Your task to perform on an android device: set default search engine in the chrome app Image 0: 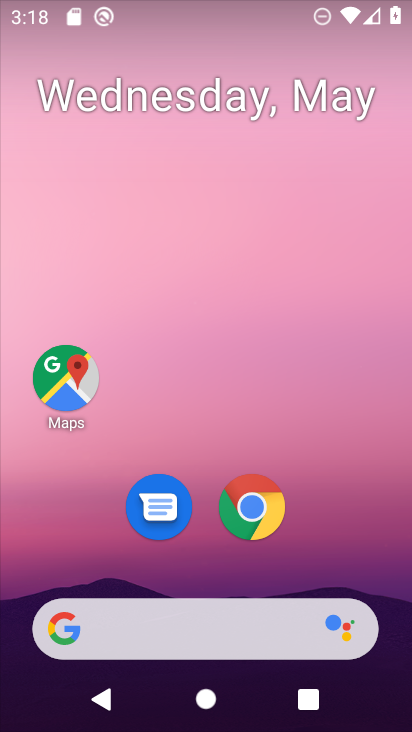
Step 0: click (268, 519)
Your task to perform on an android device: set default search engine in the chrome app Image 1: 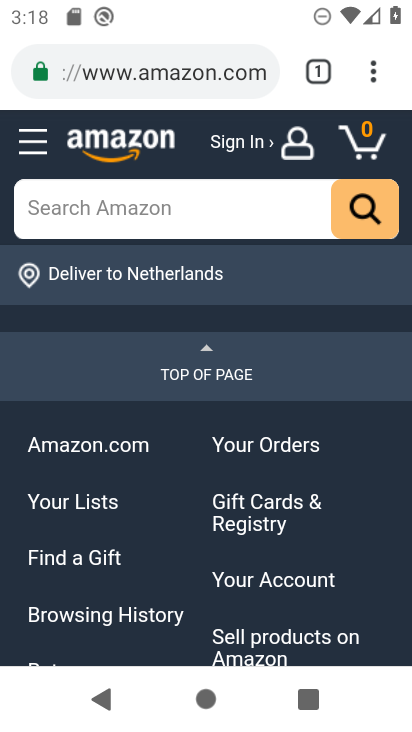
Step 1: click (371, 78)
Your task to perform on an android device: set default search engine in the chrome app Image 2: 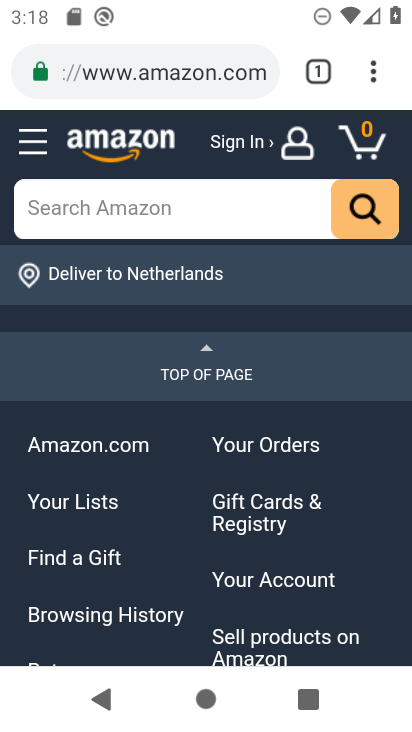
Step 2: click (375, 75)
Your task to perform on an android device: set default search engine in the chrome app Image 3: 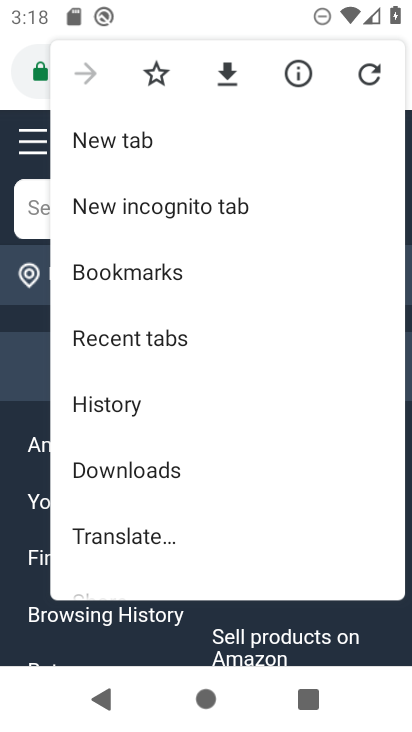
Step 3: drag from (118, 459) to (196, 214)
Your task to perform on an android device: set default search engine in the chrome app Image 4: 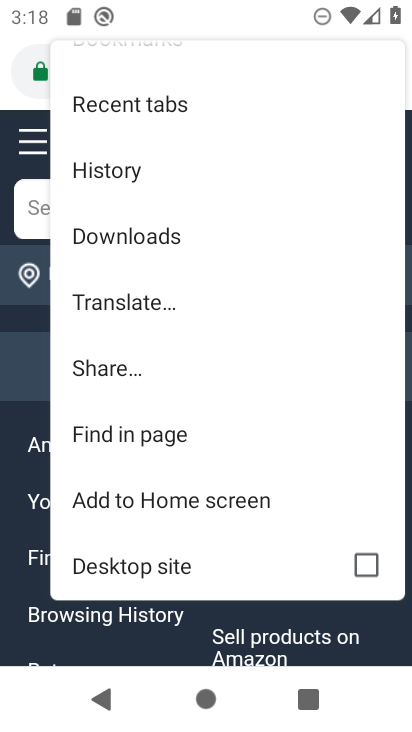
Step 4: drag from (141, 528) to (203, 290)
Your task to perform on an android device: set default search engine in the chrome app Image 5: 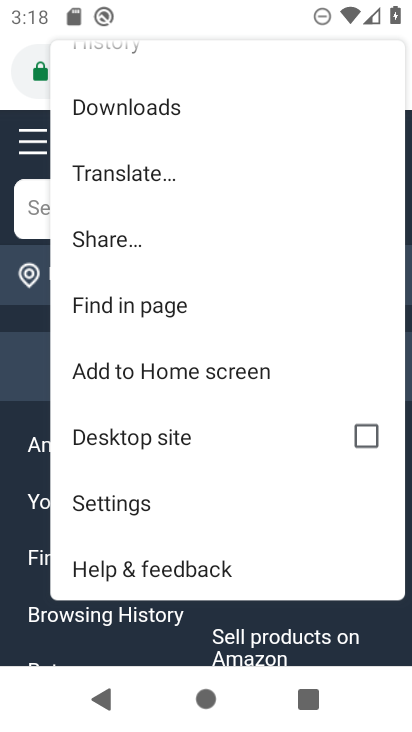
Step 5: click (134, 519)
Your task to perform on an android device: set default search engine in the chrome app Image 6: 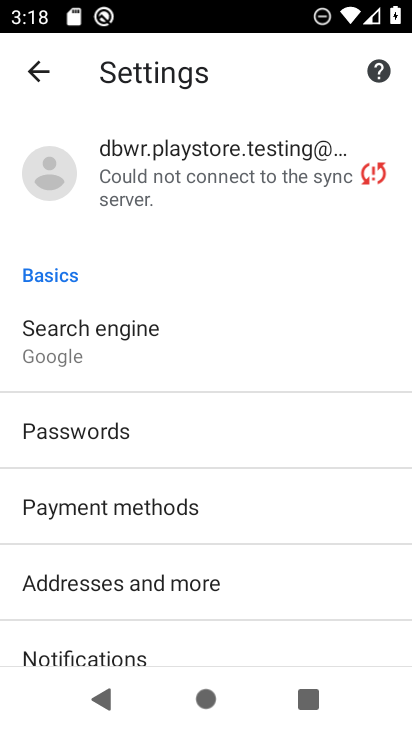
Step 6: click (111, 342)
Your task to perform on an android device: set default search engine in the chrome app Image 7: 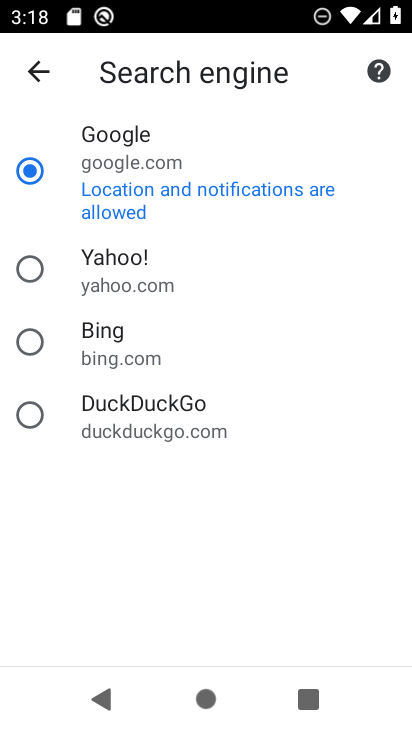
Step 7: click (138, 185)
Your task to perform on an android device: set default search engine in the chrome app Image 8: 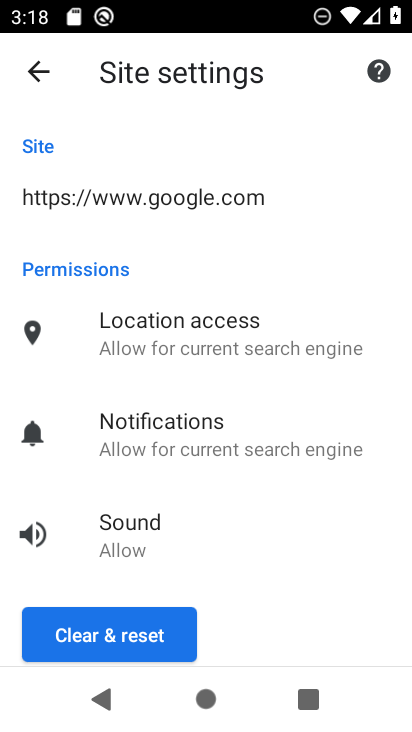
Step 8: click (162, 643)
Your task to perform on an android device: set default search engine in the chrome app Image 9: 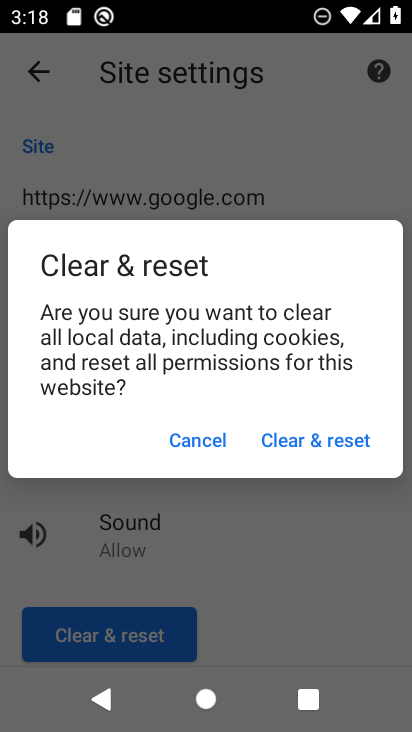
Step 9: click (336, 439)
Your task to perform on an android device: set default search engine in the chrome app Image 10: 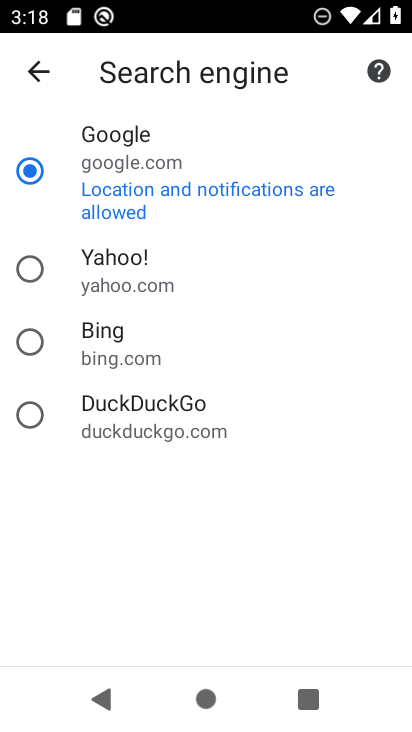
Step 10: task complete